Your task to perform on an android device: Go to privacy settings Image 0: 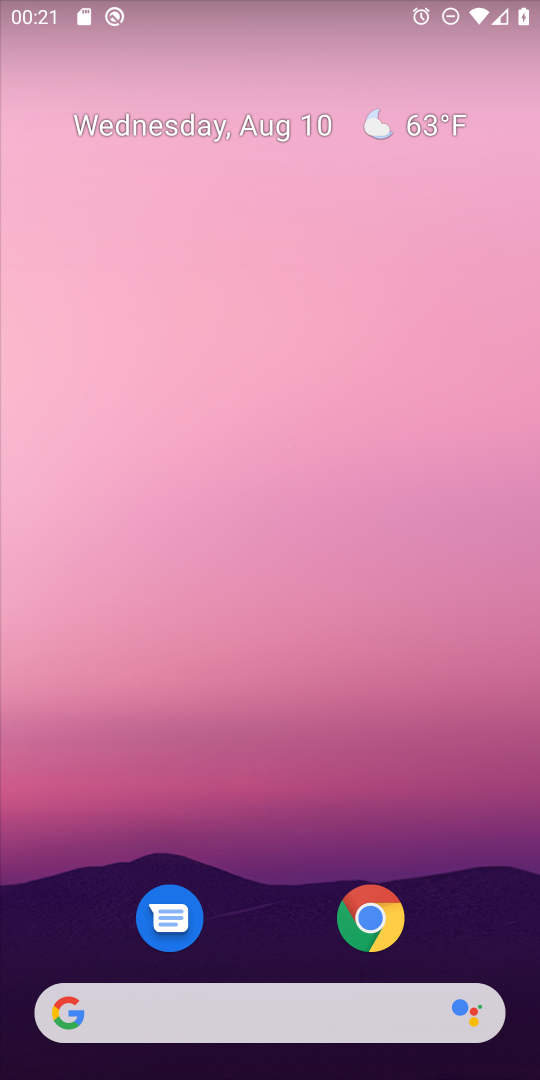
Step 0: drag from (231, 833) to (240, 171)
Your task to perform on an android device: Go to privacy settings Image 1: 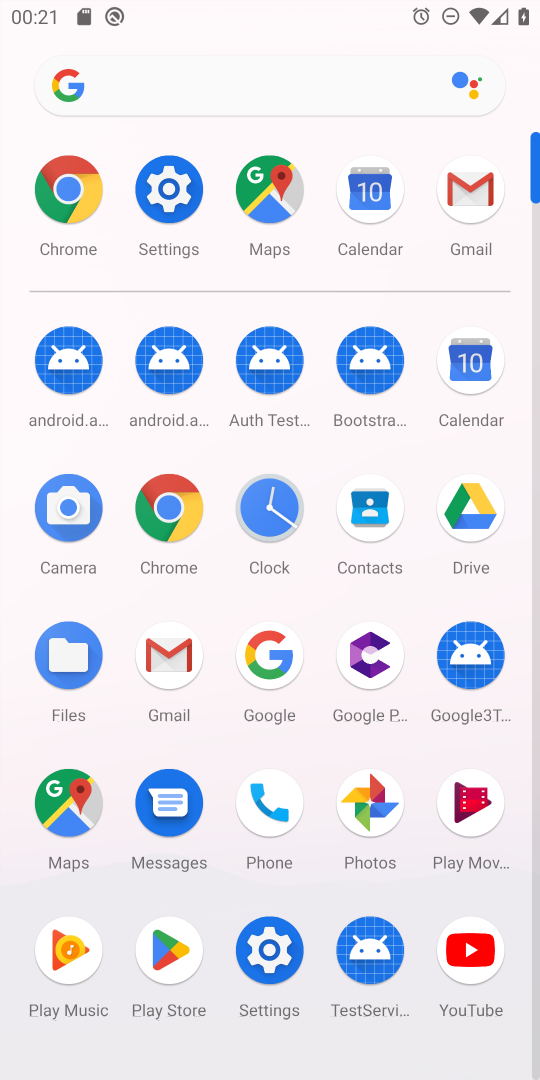
Step 1: click (268, 951)
Your task to perform on an android device: Go to privacy settings Image 2: 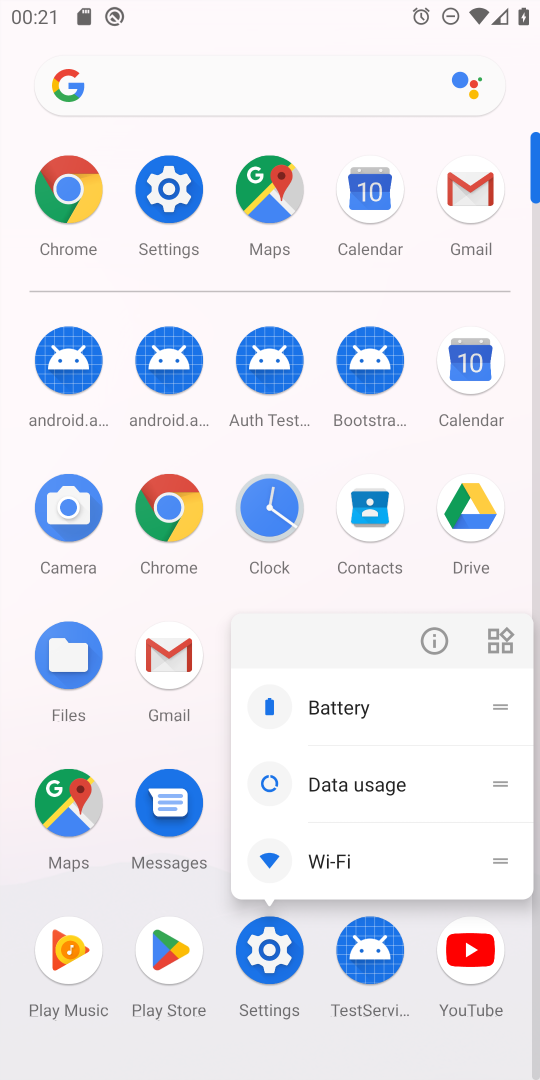
Step 2: click (268, 951)
Your task to perform on an android device: Go to privacy settings Image 3: 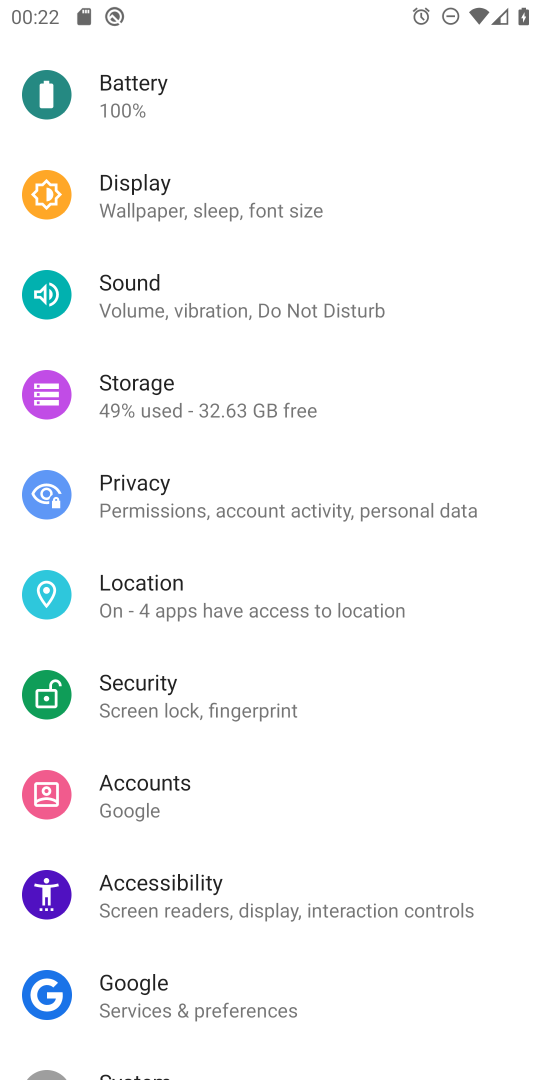
Step 3: click (184, 489)
Your task to perform on an android device: Go to privacy settings Image 4: 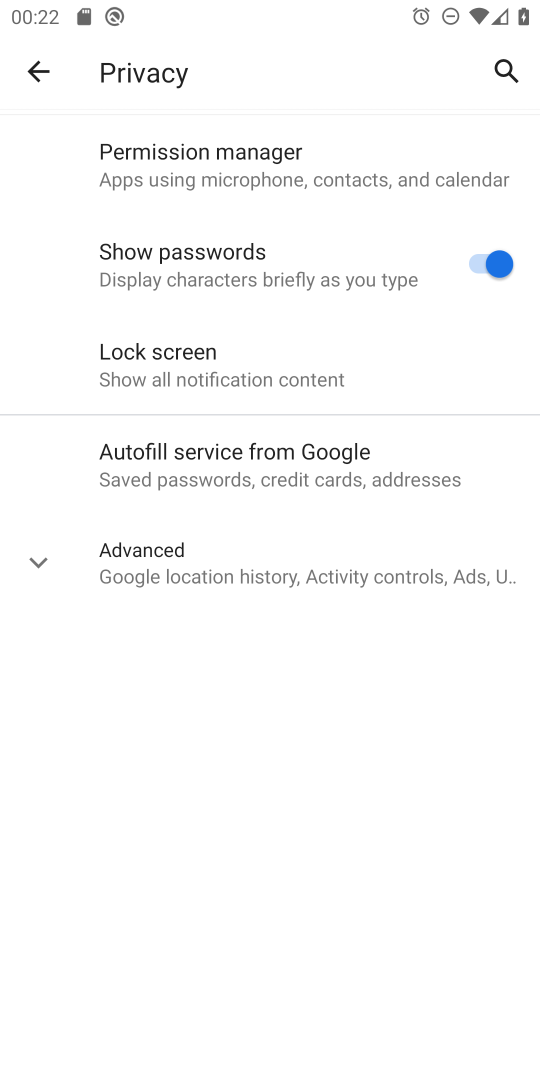
Step 4: task complete